Your task to perform on an android device: Do I have any events today? Image 0: 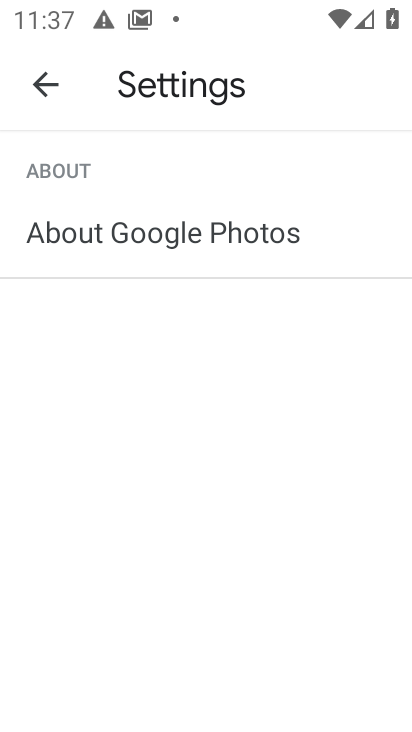
Step 0: press home button
Your task to perform on an android device: Do I have any events today? Image 1: 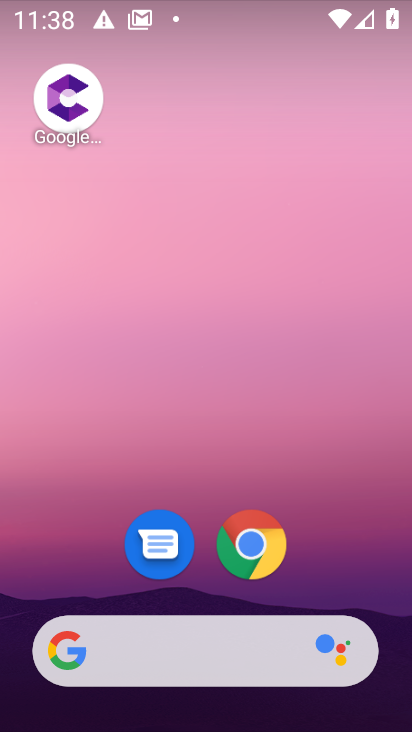
Step 1: drag from (391, 683) to (341, 155)
Your task to perform on an android device: Do I have any events today? Image 2: 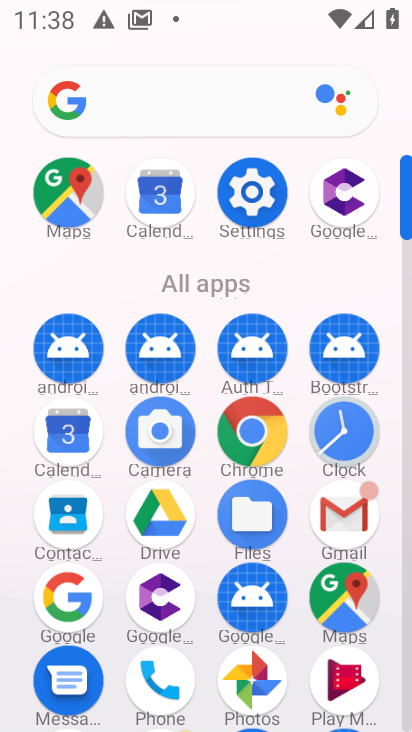
Step 2: click (71, 426)
Your task to perform on an android device: Do I have any events today? Image 3: 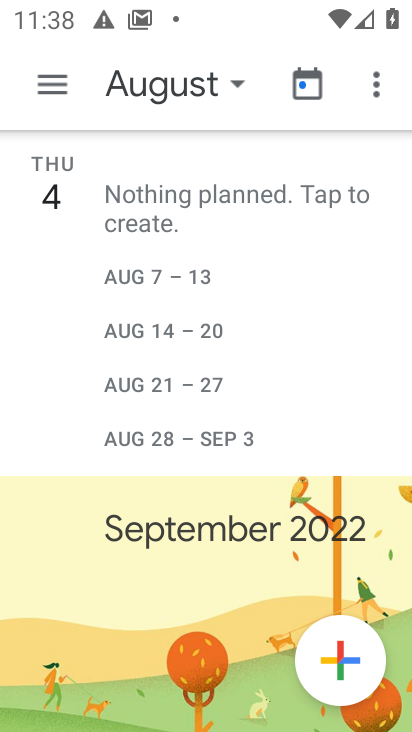
Step 3: click (228, 87)
Your task to perform on an android device: Do I have any events today? Image 4: 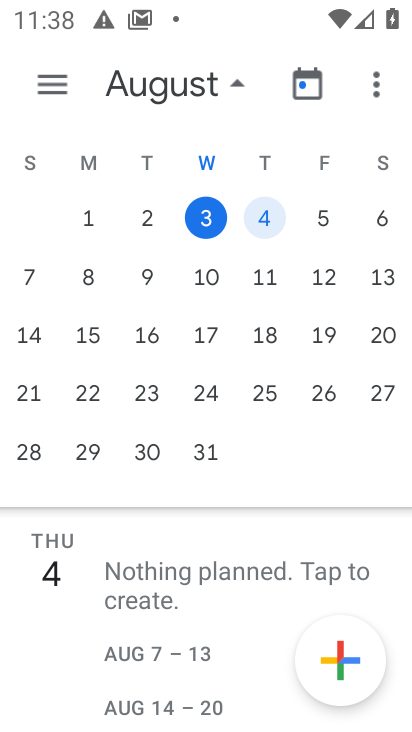
Step 4: click (200, 219)
Your task to perform on an android device: Do I have any events today? Image 5: 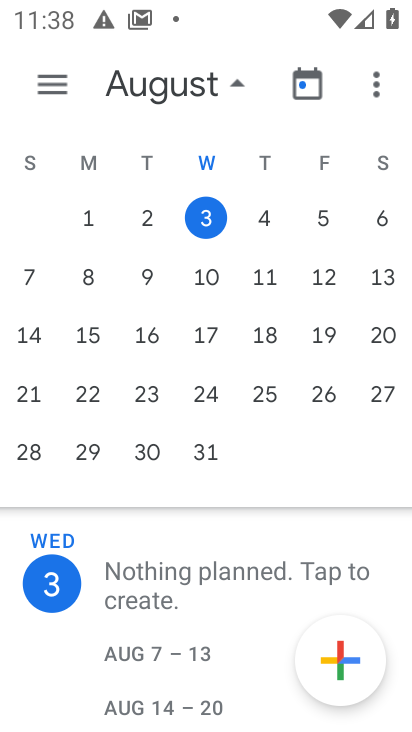
Step 5: click (62, 87)
Your task to perform on an android device: Do I have any events today? Image 6: 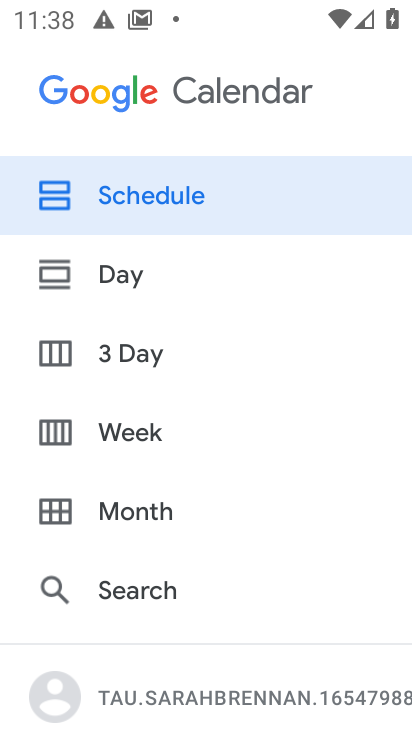
Step 6: click (129, 186)
Your task to perform on an android device: Do I have any events today? Image 7: 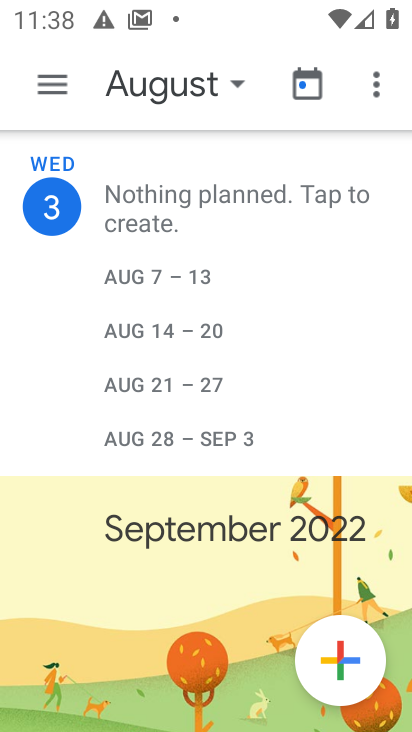
Step 7: click (63, 87)
Your task to perform on an android device: Do I have any events today? Image 8: 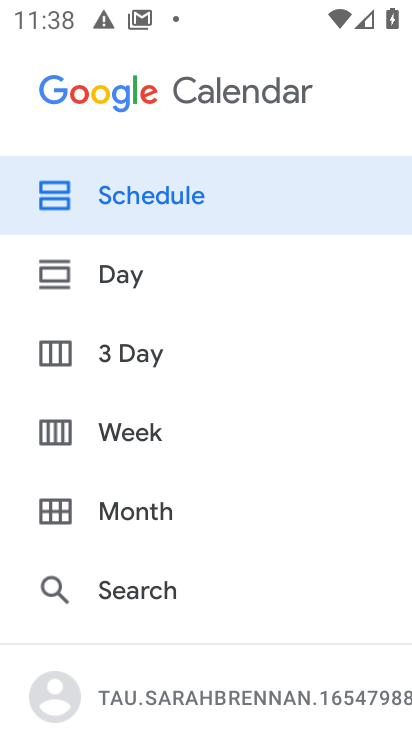
Step 8: click (96, 272)
Your task to perform on an android device: Do I have any events today? Image 9: 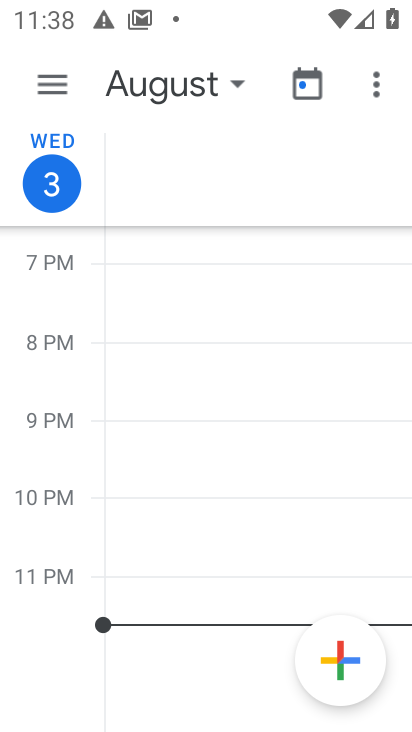
Step 9: click (57, 81)
Your task to perform on an android device: Do I have any events today? Image 10: 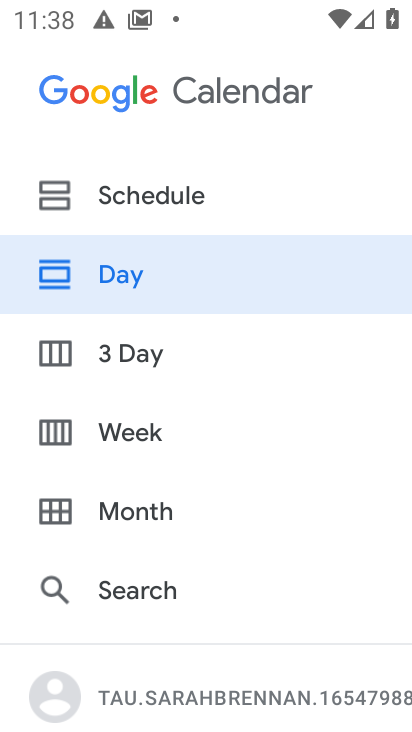
Step 10: click (99, 189)
Your task to perform on an android device: Do I have any events today? Image 11: 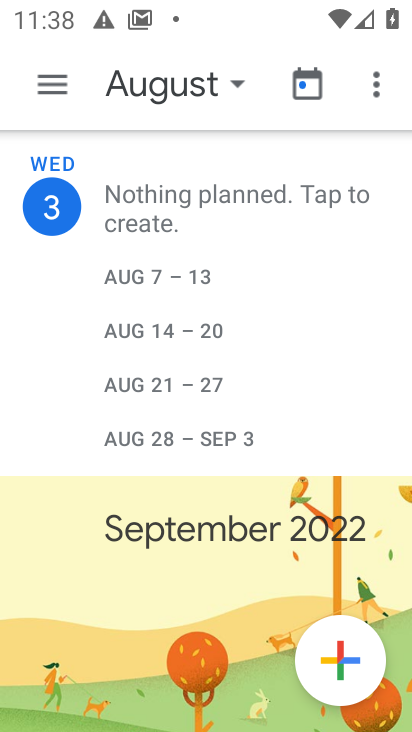
Step 11: task complete